Your task to perform on an android device: Search for Mexican restaurants on Maps Image 0: 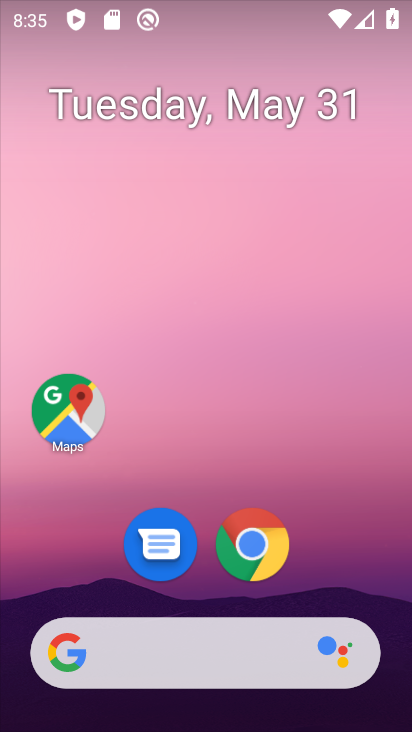
Step 0: click (71, 407)
Your task to perform on an android device: Search for Mexican restaurants on Maps Image 1: 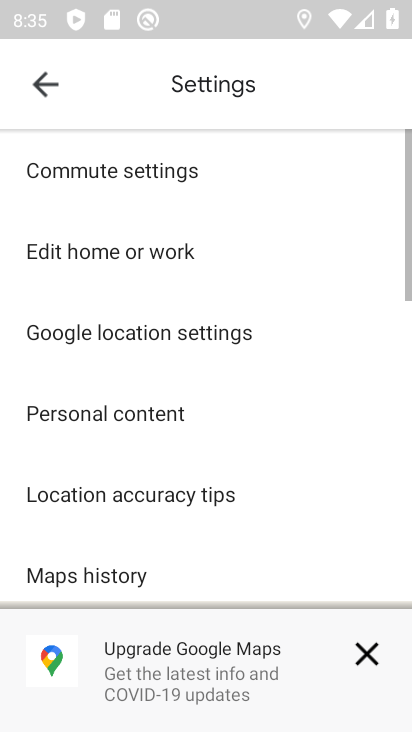
Step 1: click (45, 74)
Your task to perform on an android device: Search for Mexican restaurants on Maps Image 2: 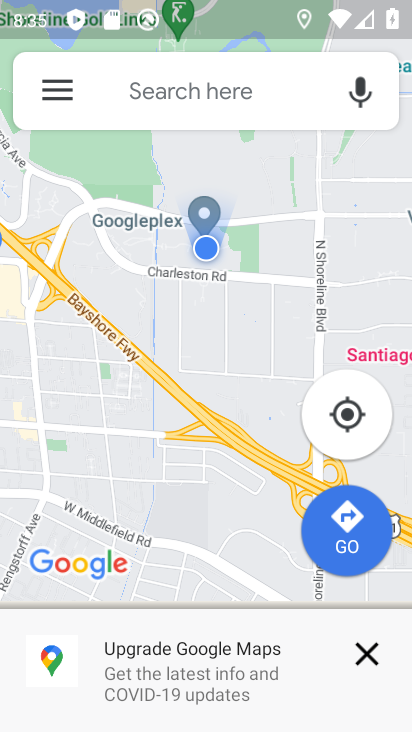
Step 2: click (217, 80)
Your task to perform on an android device: Search for Mexican restaurants on Maps Image 3: 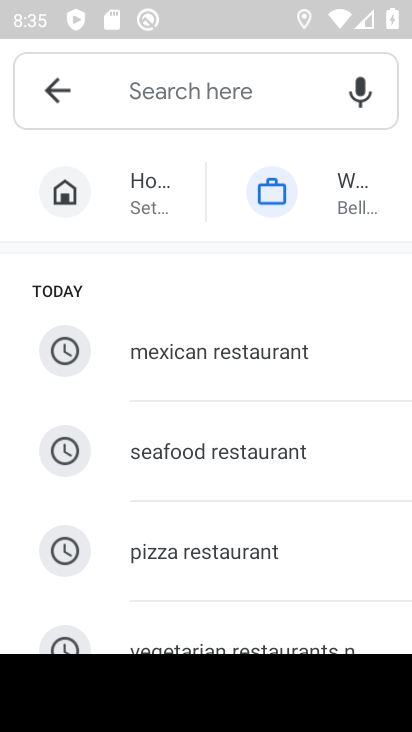
Step 3: type "mexican restaurants"
Your task to perform on an android device: Search for Mexican restaurants on Maps Image 4: 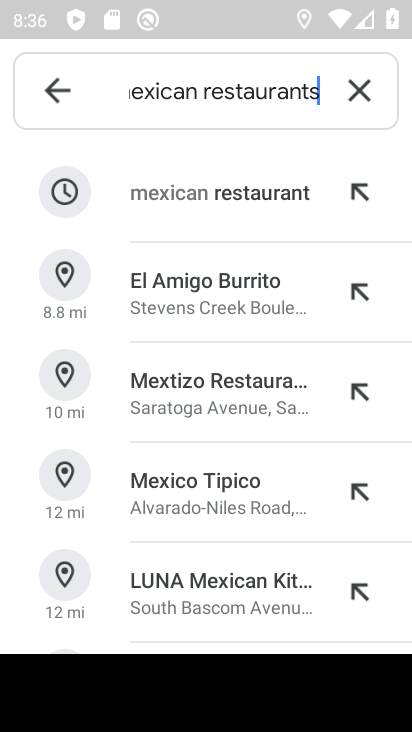
Step 4: click (239, 219)
Your task to perform on an android device: Search for Mexican restaurants on Maps Image 5: 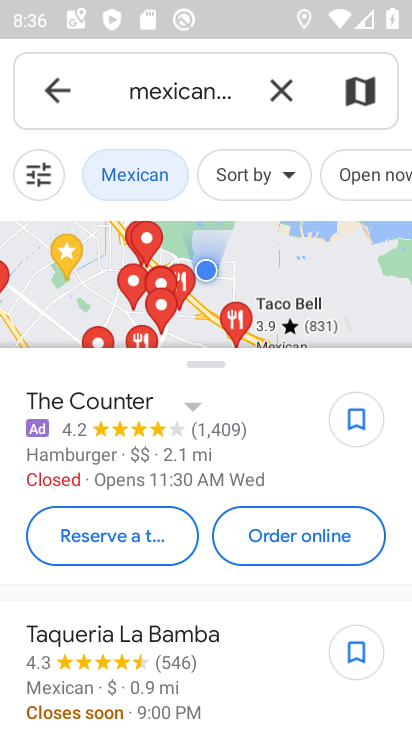
Step 5: task complete